Your task to perform on an android device: toggle show notifications on the lock screen Image 0: 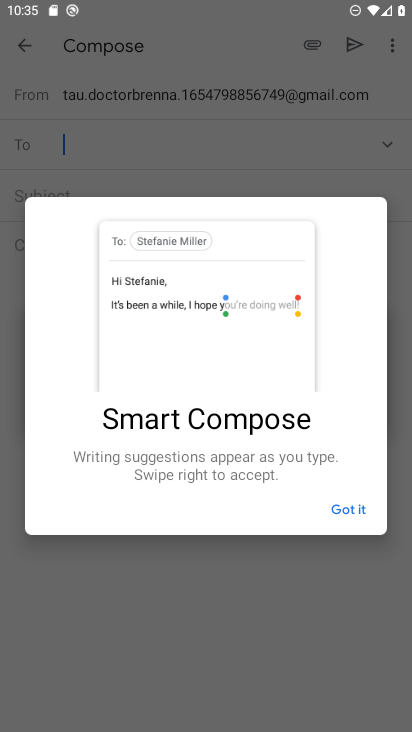
Step 0: press home button
Your task to perform on an android device: toggle show notifications on the lock screen Image 1: 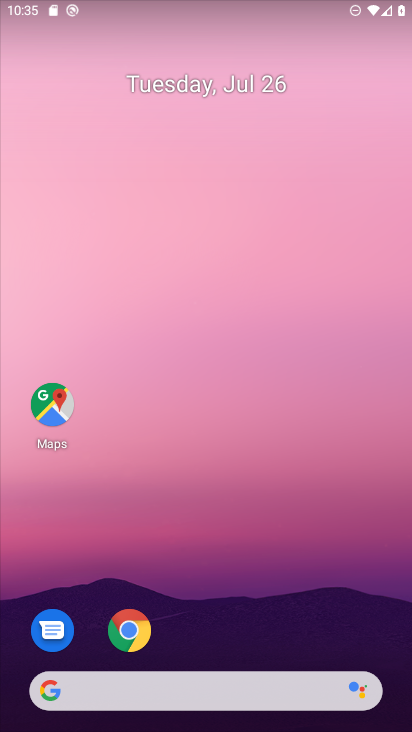
Step 1: drag from (379, 619) to (332, 161)
Your task to perform on an android device: toggle show notifications on the lock screen Image 2: 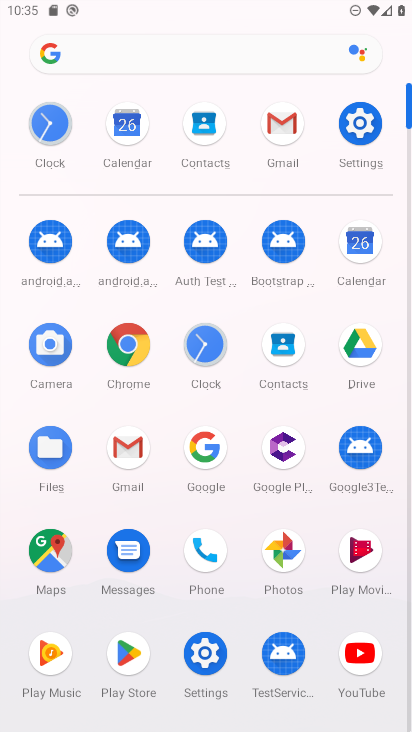
Step 2: click (206, 654)
Your task to perform on an android device: toggle show notifications on the lock screen Image 3: 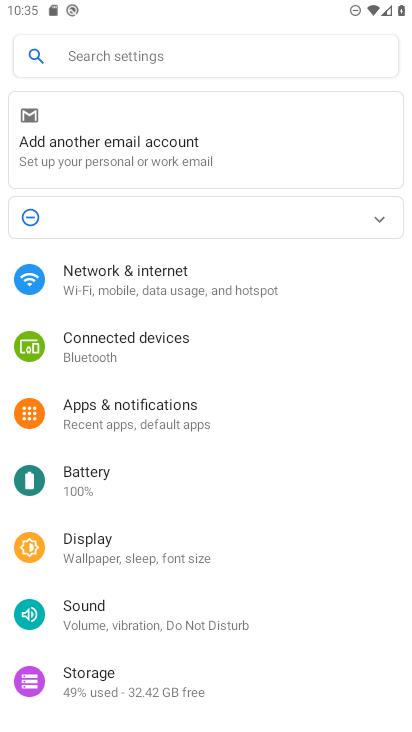
Step 3: click (120, 409)
Your task to perform on an android device: toggle show notifications on the lock screen Image 4: 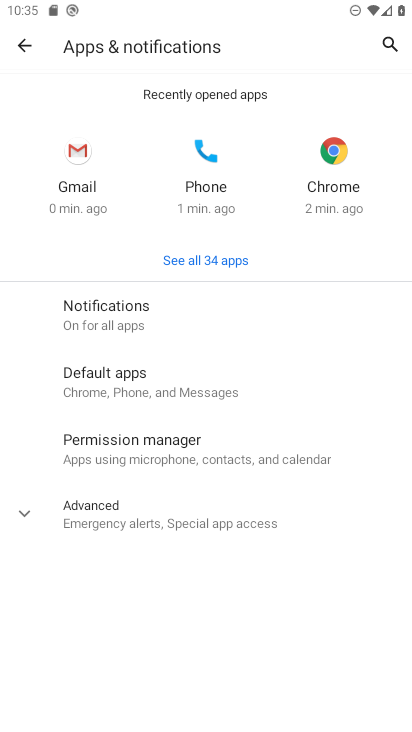
Step 4: click (100, 310)
Your task to perform on an android device: toggle show notifications on the lock screen Image 5: 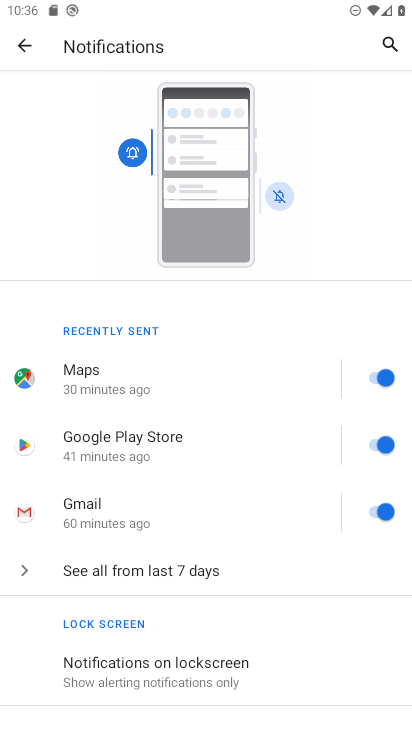
Step 5: drag from (242, 610) to (266, 305)
Your task to perform on an android device: toggle show notifications on the lock screen Image 6: 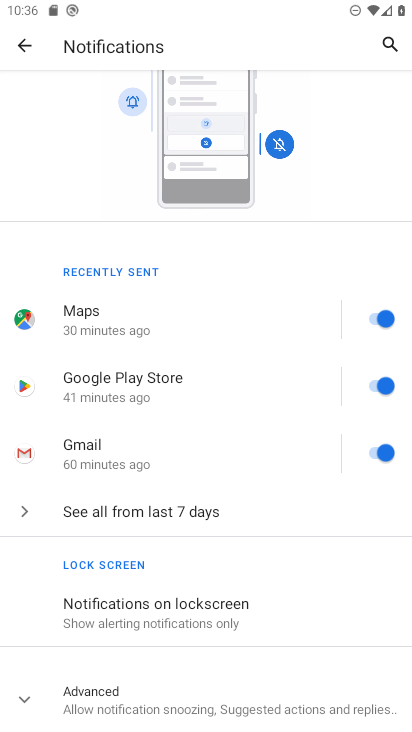
Step 6: click (117, 611)
Your task to perform on an android device: toggle show notifications on the lock screen Image 7: 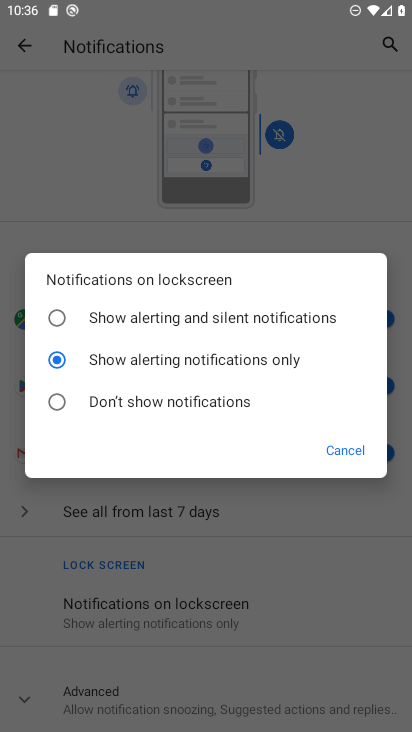
Step 7: click (57, 311)
Your task to perform on an android device: toggle show notifications on the lock screen Image 8: 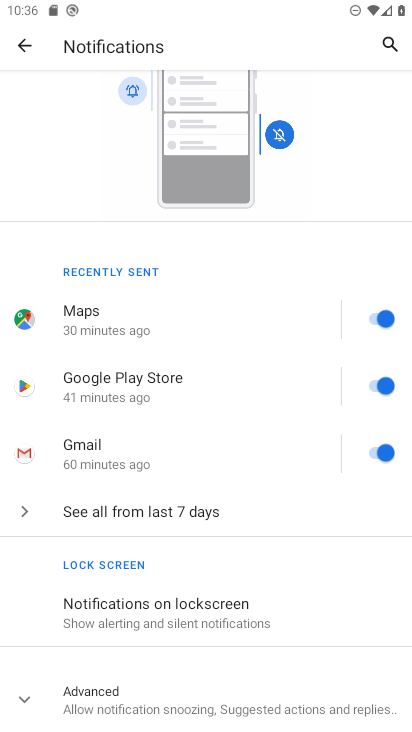
Step 8: task complete